Your task to perform on an android device: search for starred emails in the gmail app Image 0: 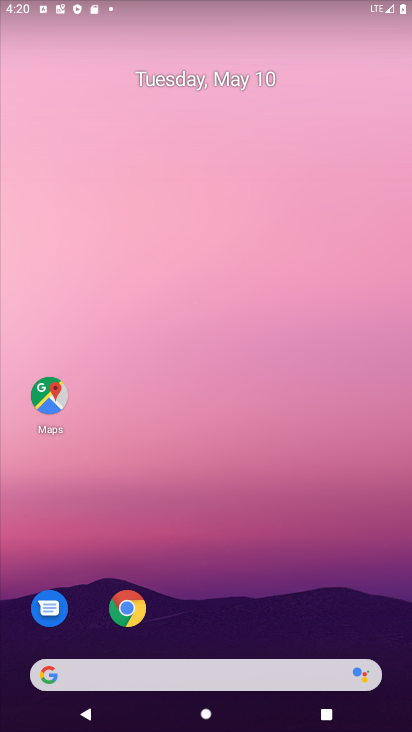
Step 0: drag from (391, 648) to (301, 99)
Your task to perform on an android device: search for starred emails in the gmail app Image 1: 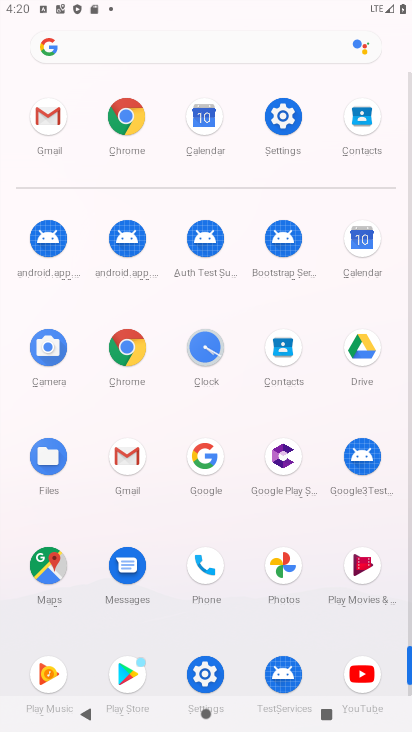
Step 1: click (123, 454)
Your task to perform on an android device: search for starred emails in the gmail app Image 2: 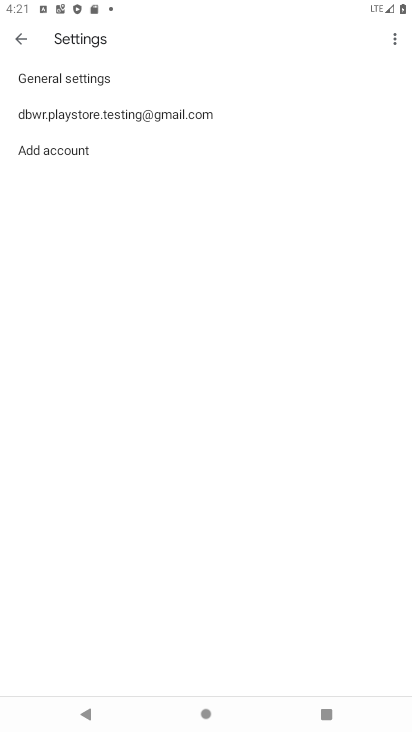
Step 2: press back button
Your task to perform on an android device: search for starred emails in the gmail app Image 3: 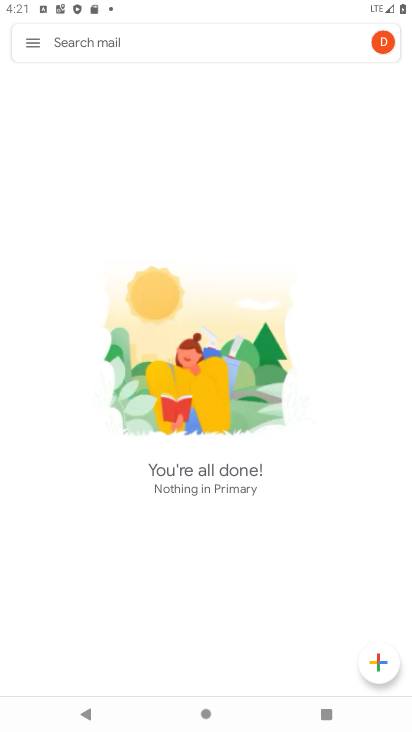
Step 3: click (32, 43)
Your task to perform on an android device: search for starred emails in the gmail app Image 4: 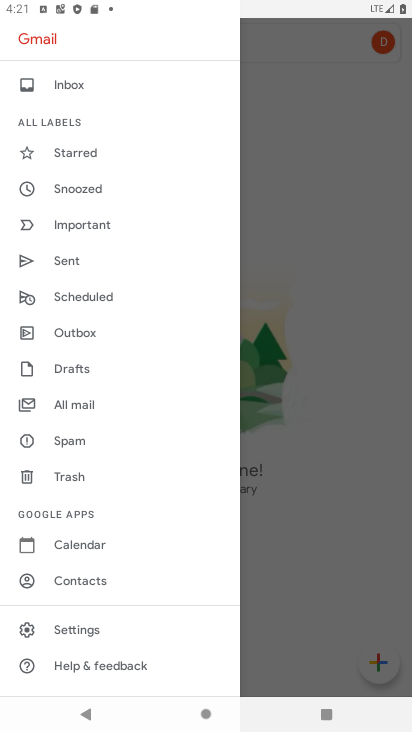
Step 4: click (74, 151)
Your task to perform on an android device: search for starred emails in the gmail app Image 5: 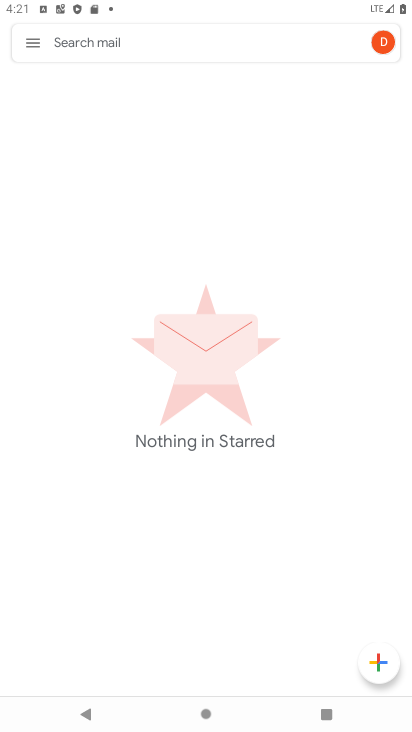
Step 5: task complete